Your task to perform on an android device: delete a single message in the gmail app Image 0: 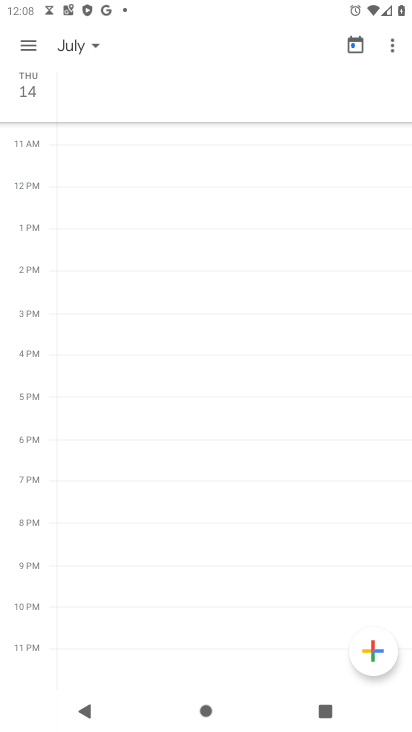
Step 0: press home button
Your task to perform on an android device: delete a single message in the gmail app Image 1: 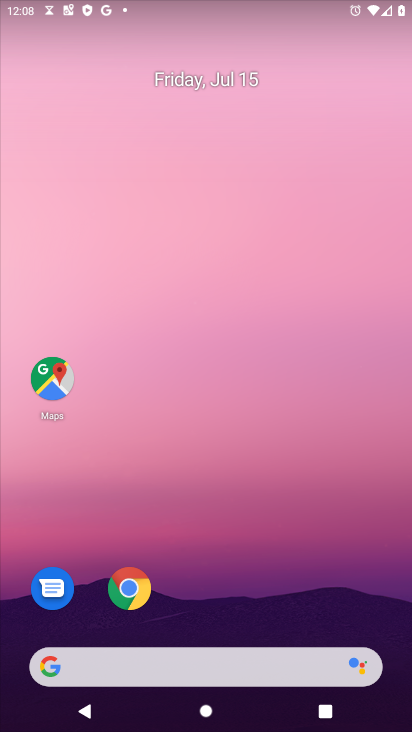
Step 1: drag from (197, 658) to (308, 160)
Your task to perform on an android device: delete a single message in the gmail app Image 2: 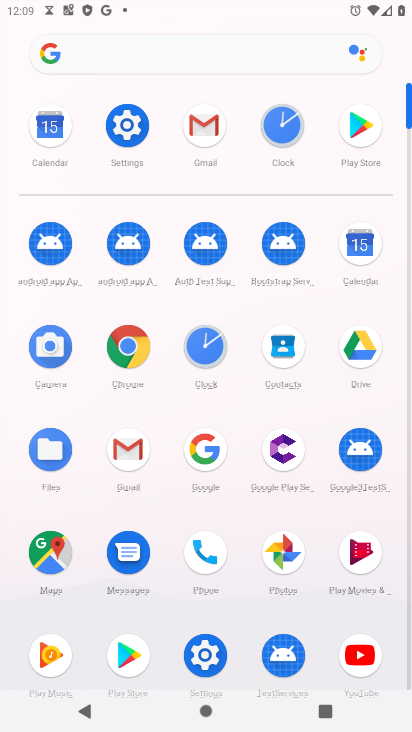
Step 2: click (192, 128)
Your task to perform on an android device: delete a single message in the gmail app Image 3: 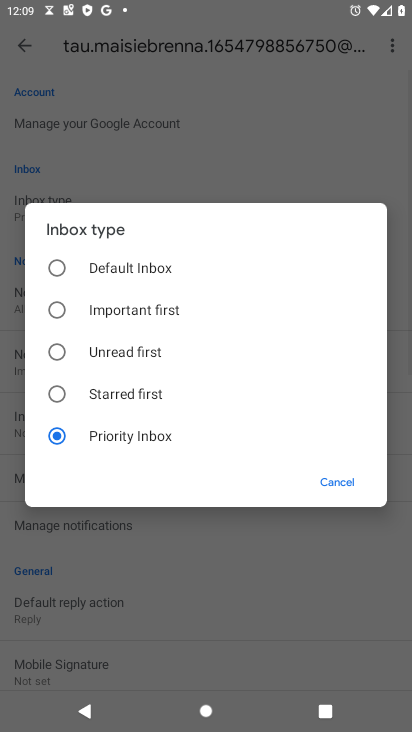
Step 3: click (352, 481)
Your task to perform on an android device: delete a single message in the gmail app Image 4: 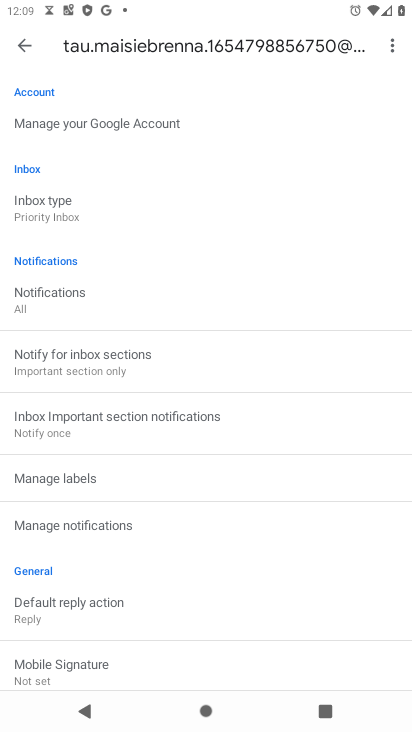
Step 4: click (35, 54)
Your task to perform on an android device: delete a single message in the gmail app Image 5: 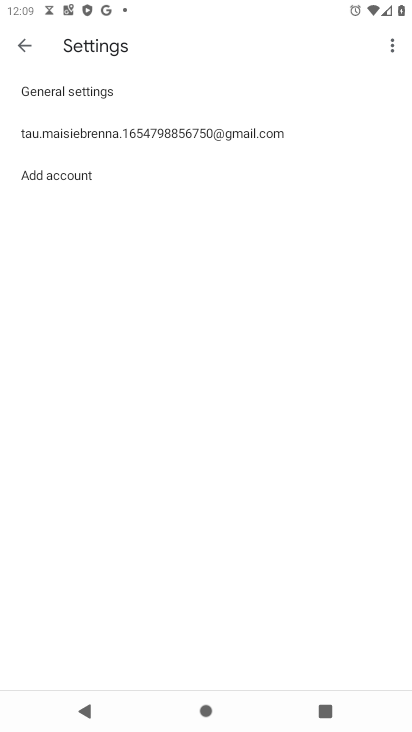
Step 5: click (33, 44)
Your task to perform on an android device: delete a single message in the gmail app Image 6: 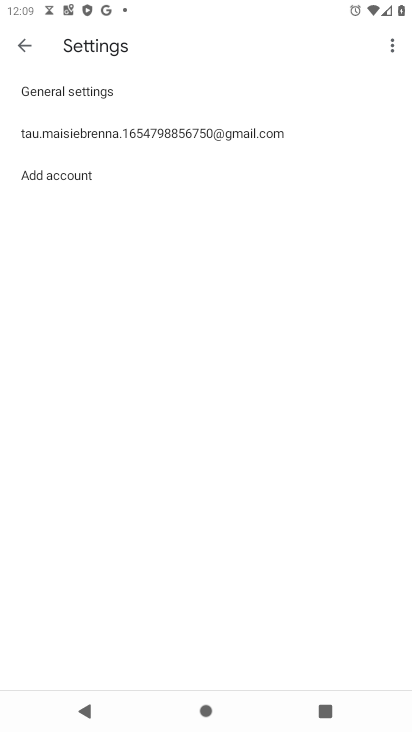
Step 6: click (30, 48)
Your task to perform on an android device: delete a single message in the gmail app Image 7: 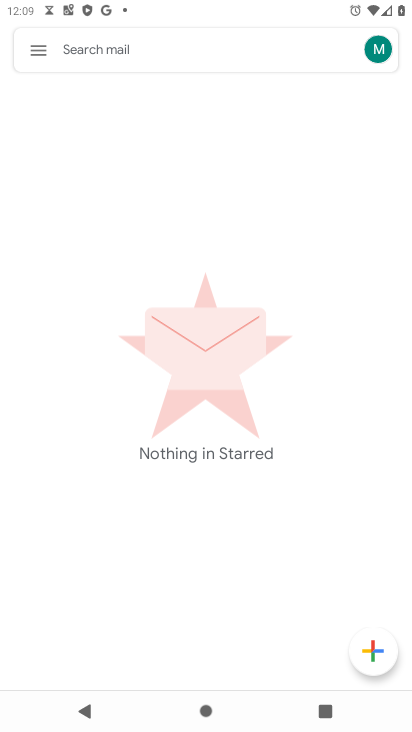
Step 7: click (38, 47)
Your task to perform on an android device: delete a single message in the gmail app Image 8: 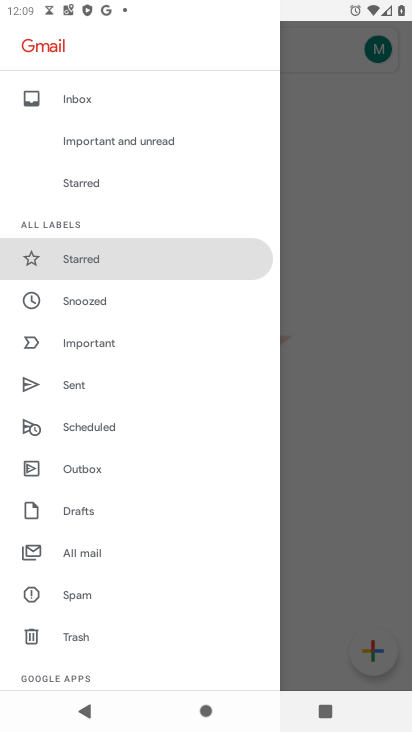
Step 8: click (100, 105)
Your task to perform on an android device: delete a single message in the gmail app Image 9: 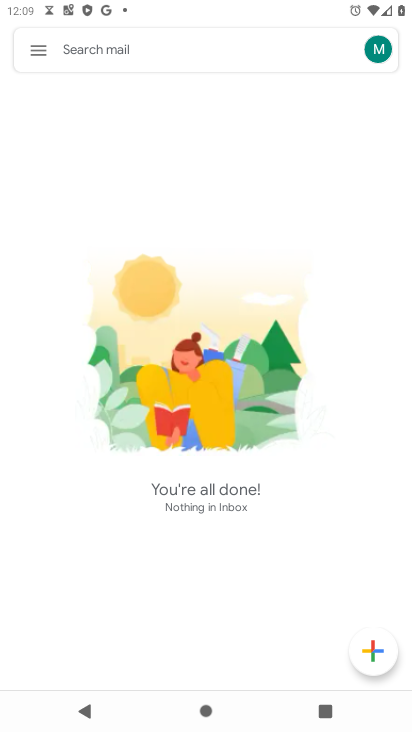
Step 9: task complete